Your task to perform on an android device: see sites visited before in the chrome app Image 0: 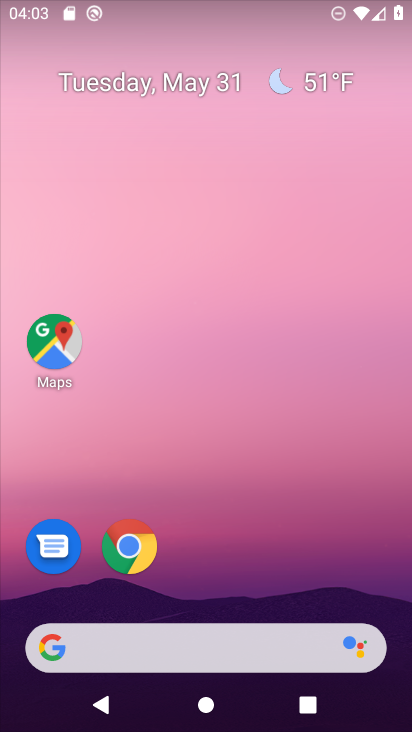
Step 0: click (129, 557)
Your task to perform on an android device: see sites visited before in the chrome app Image 1: 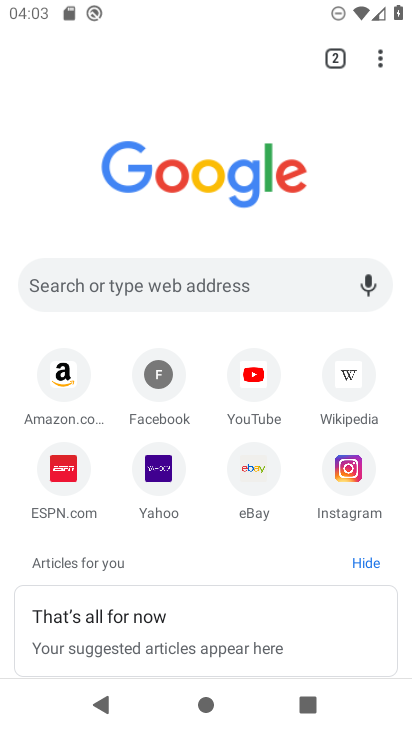
Step 1: click (379, 64)
Your task to perform on an android device: see sites visited before in the chrome app Image 2: 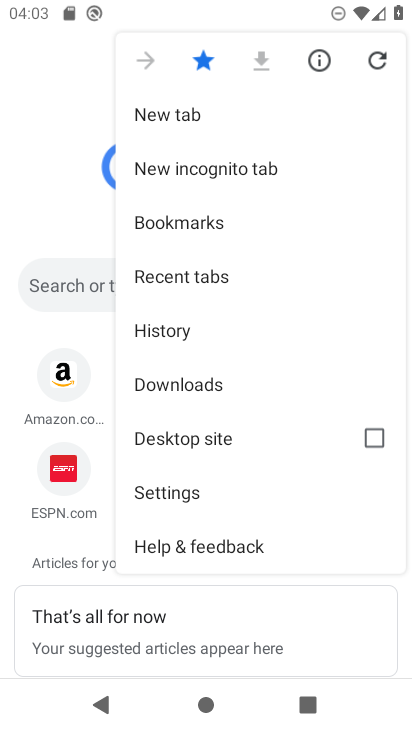
Step 2: click (178, 336)
Your task to perform on an android device: see sites visited before in the chrome app Image 3: 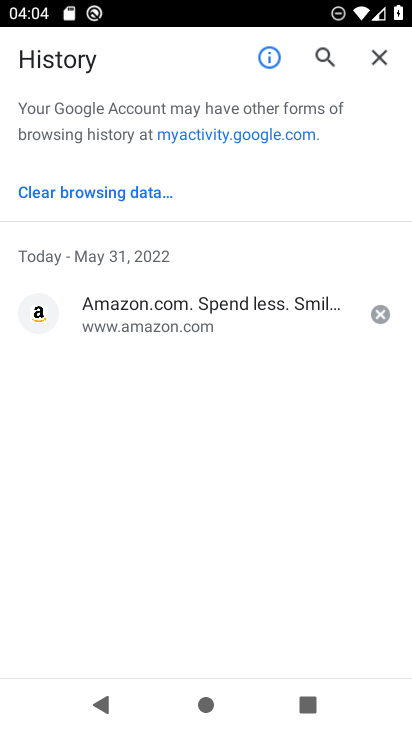
Step 3: task complete